Your task to perform on an android device: toggle notifications settings in the gmail app Image 0: 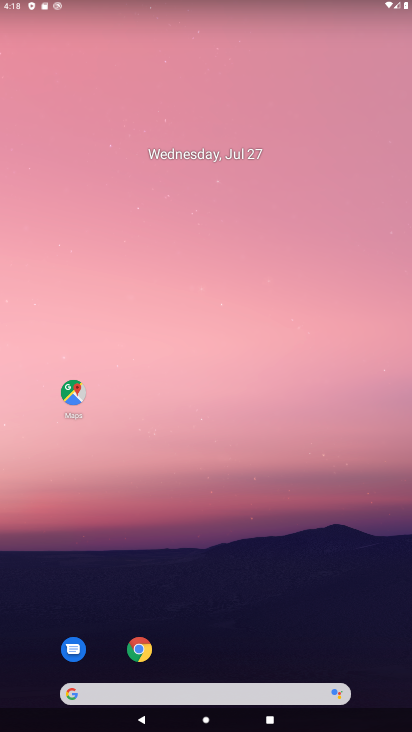
Step 0: drag from (281, 618) to (361, 260)
Your task to perform on an android device: toggle notifications settings in the gmail app Image 1: 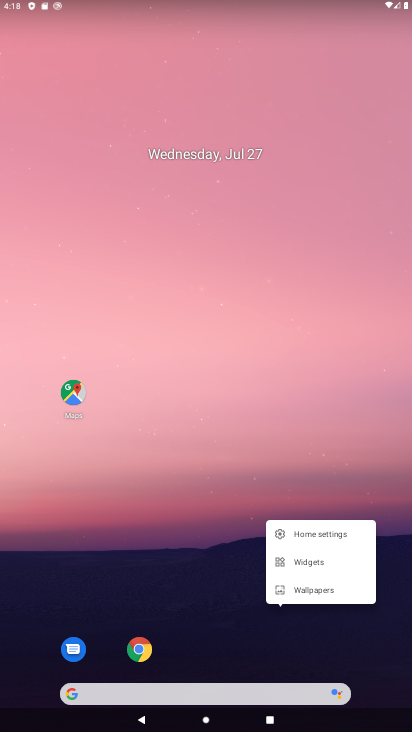
Step 1: drag from (216, 626) to (290, 64)
Your task to perform on an android device: toggle notifications settings in the gmail app Image 2: 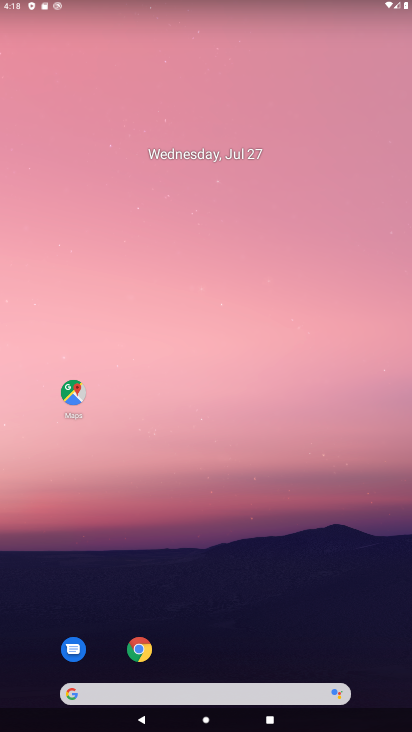
Step 2: drag from (285, 647) to (291, 309)
Your task to perform on an android device: toggle notifications settings in the gmail app Image 3: 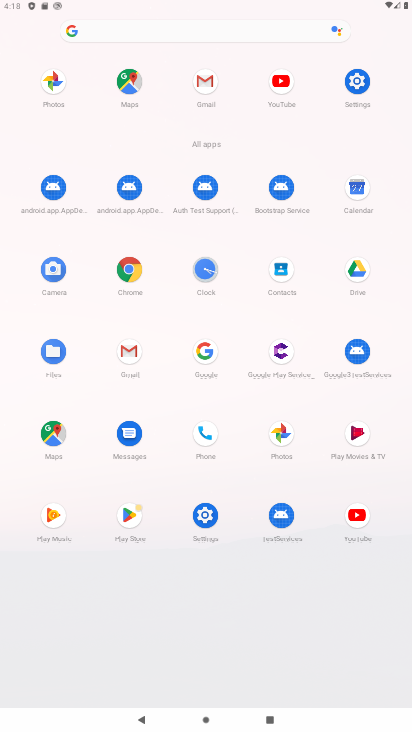
Step 3: click (129, 356)
Your task to perform on an android device: toggle notifications settings in the gmail app Image 4: 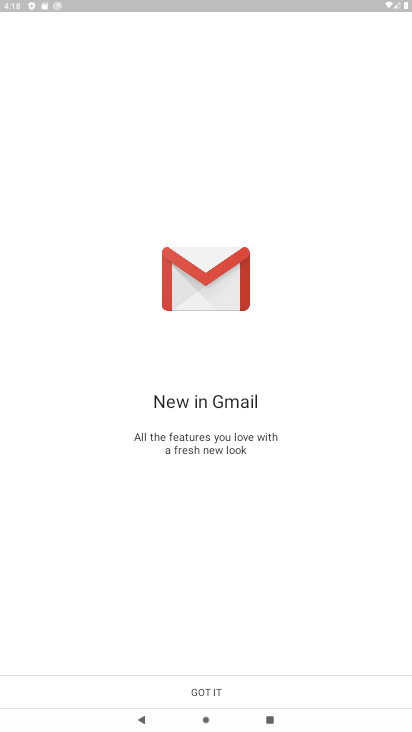
Step 4: click (180, 681)
Your task to perform on an android device: toggle notifications settings in the gmail app Image 5: 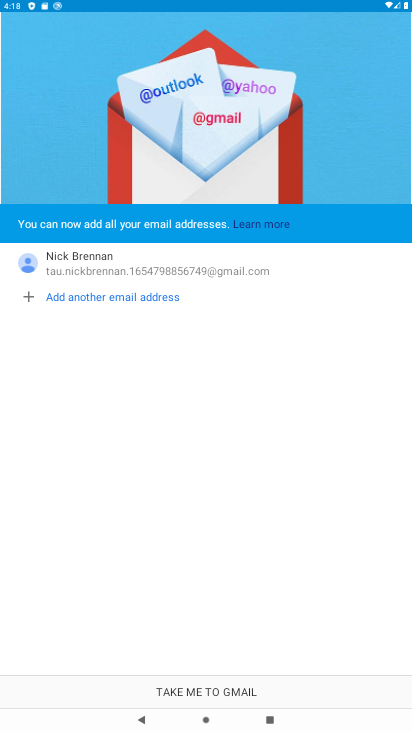
Step 5: click (180, 681)
Your task to perform on an android device: toggle notifications settings in the gmail app Image 6: 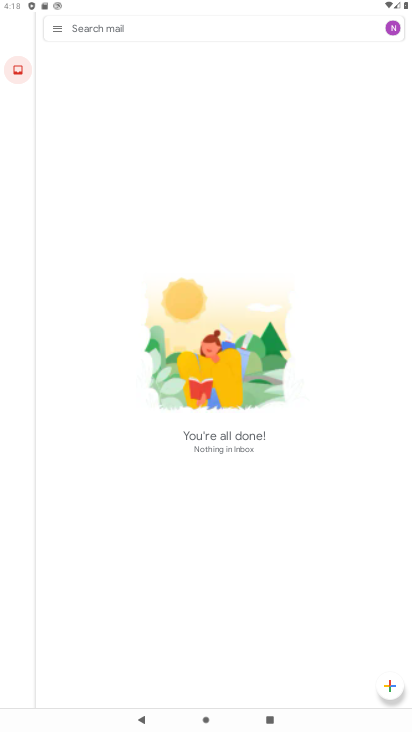
Step 6: click (61, 33)
Your task to perform on an android device: toggle notifications settings in the gmail app Image 7: 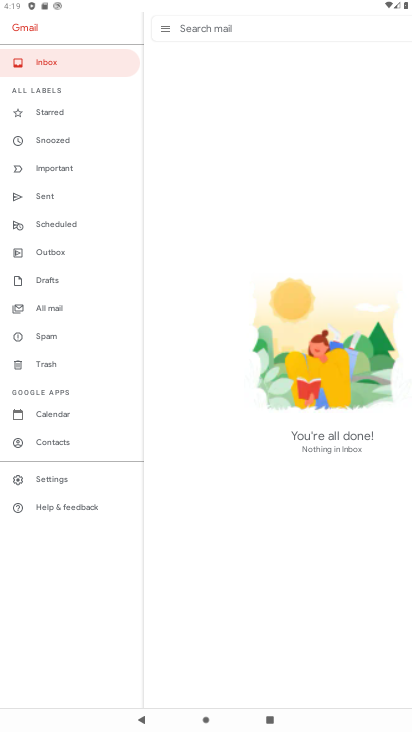
Step 7: click (74, 473)
Your task to perform on an android device: toggle notifications settings in the gmail app Image 8: 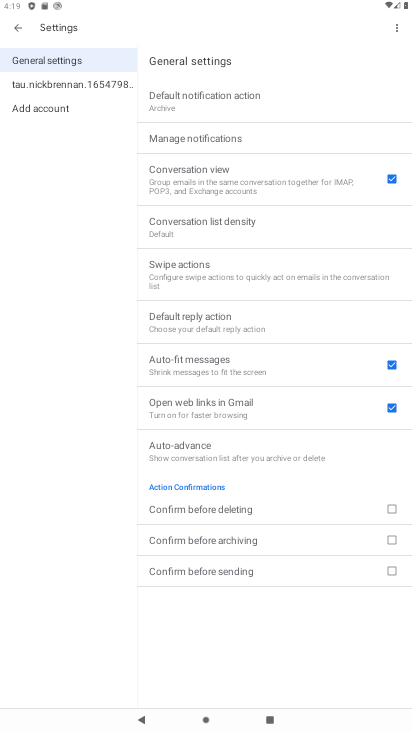
Step 8: click (114, 78)
Your task to perform on an android device: toggle notifications settings in the gmail app Image 9: 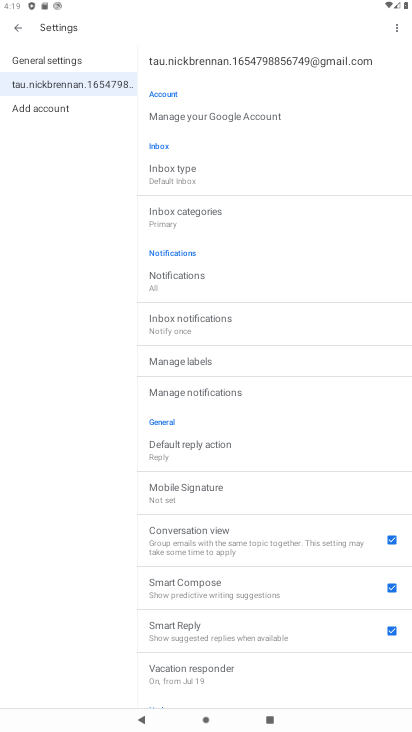
Step 9: click (205, 291)
Your task to perform on an android device: toggle notifications settings in the gmail app Image 10: 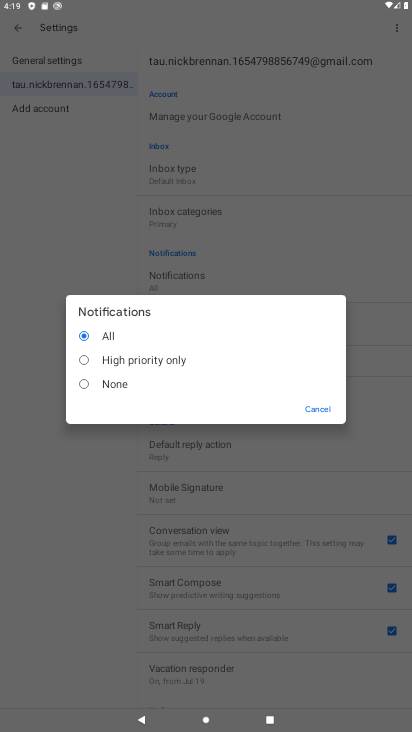
Step 10: click (86, 384)
Your task to perform on an android device: toggle notifications settings in the gmail app Image 11: 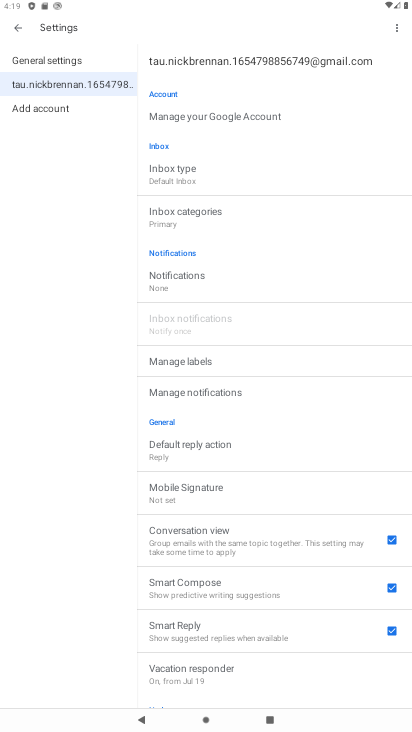
Step 11: click (174, 389)
Your task to perform on an android device: toggle notifications settings in the gmail app Image 12: 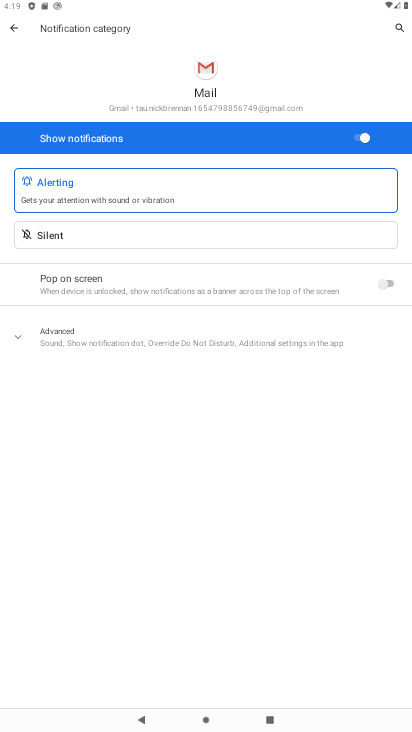
Step 12: click (356, 144)
Your task to perform on an android device: toggle notifications settings in the gmail app Image 13: 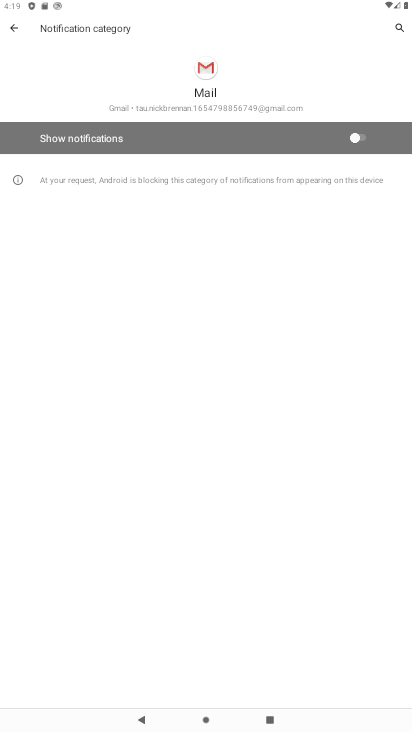
Step 13: task complete